Your task to perform on an android device: turn off priority inbox in the gmail app Image 0: 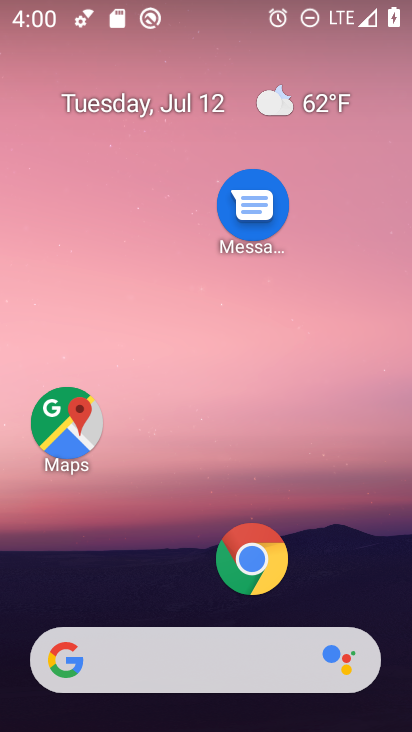
Step 0: drag from (127, 583) to (271, 19)
Your task to perform on an android device: turn off priority inbox in the gmail app Image 1: 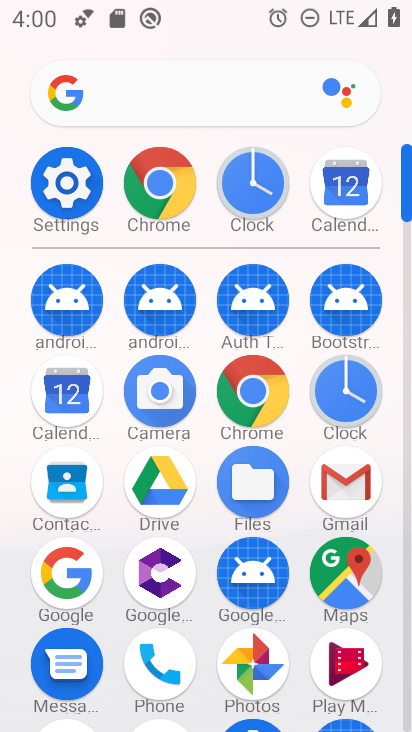
Step 1: click (336, 482)
Your task to perform on an android device: turn off priority inbox in the gmail app Image 2: 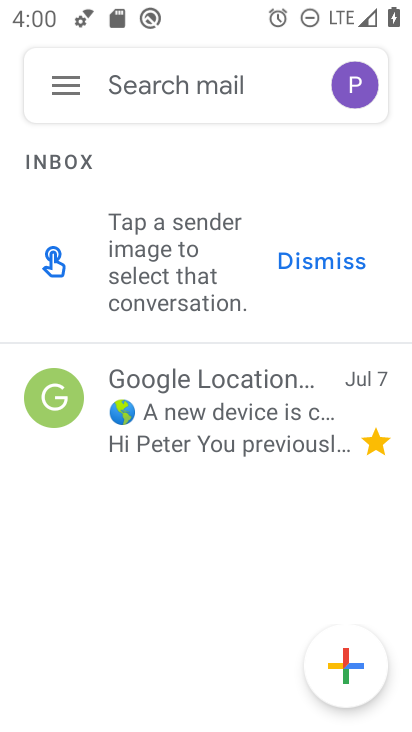
Step 2: click (70, 74)
Your task to perform on an android device: turn off priority inbox in the gmail app Image 3: 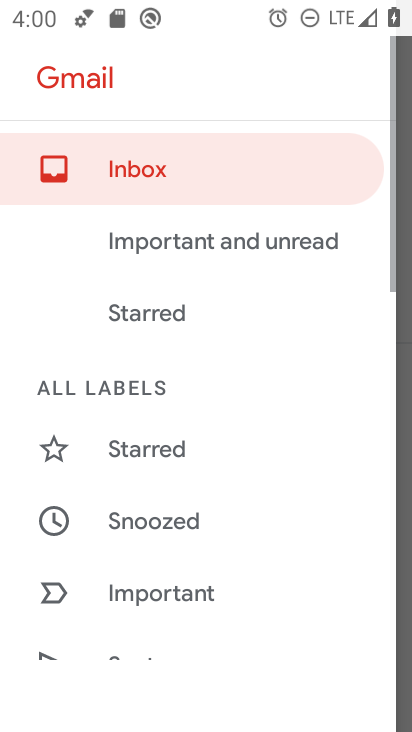
Step 3: drag from (166, 613) to (316, 26)
Your task to perform on an android device: turn off priority inbox in the gmail app Image 4: 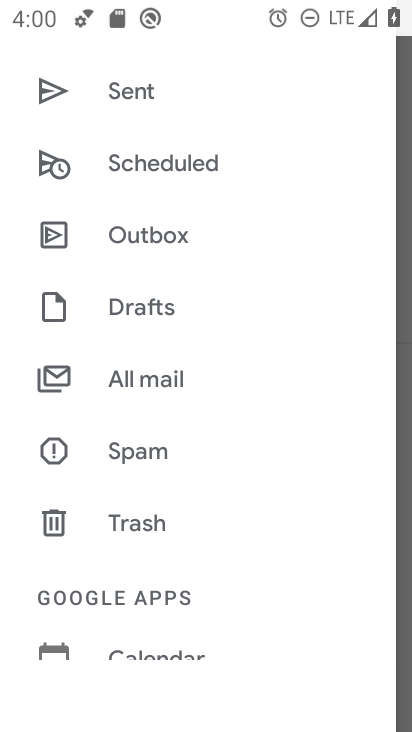
Step 4: drag from (149, 611) to (290, 0)
Your task to perform on an android device: turn off priority inbox in the gmail app Image 5: 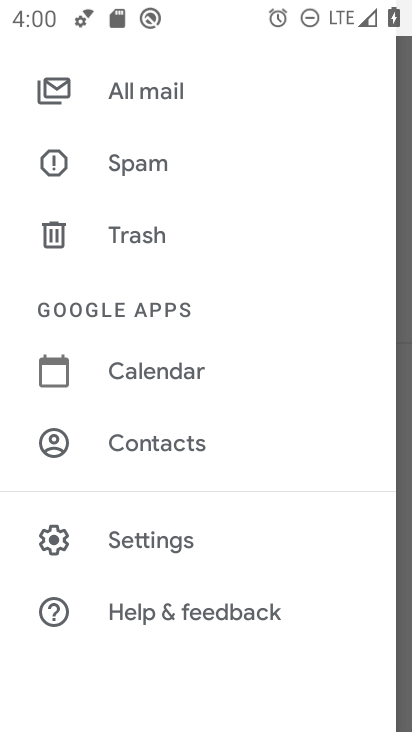
Step 5: click (156, 542)
Your task to perform on an android device: turn off priority inbox in the gmail app Image 6: 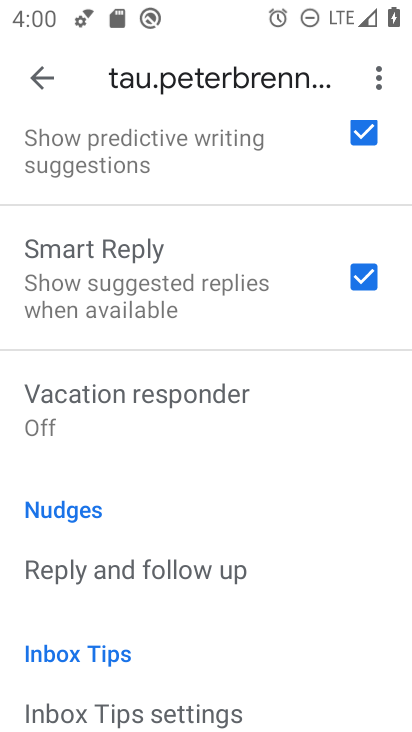
Step 6: drag from (177, 317) to (155, 695)
Your task to perform on an android device: turn off priority inbox in the gmail app Image 7: 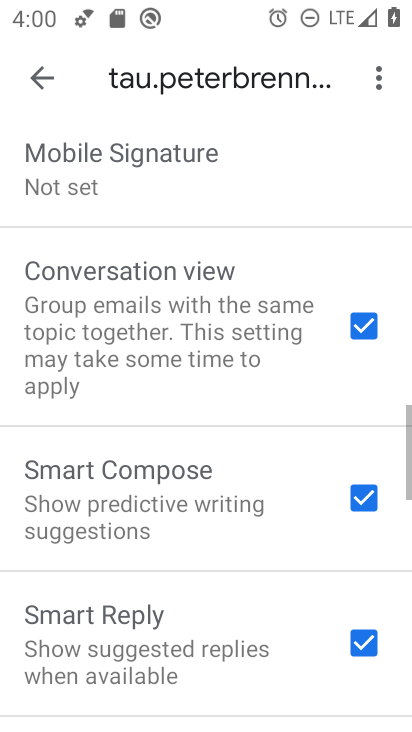
Step 7: drag from (207, 268) to (144, 724)
Your task to perform on an android device: turn off priority inbox in the gmail app Image 8: 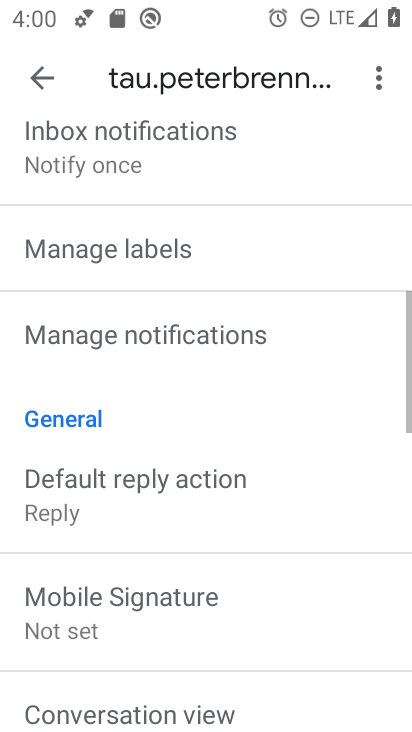
Step 8: drag from (182, 278) to (106, 731)
Your task to perform on an android device: turn off priority inbox in the gmail app Image 9: 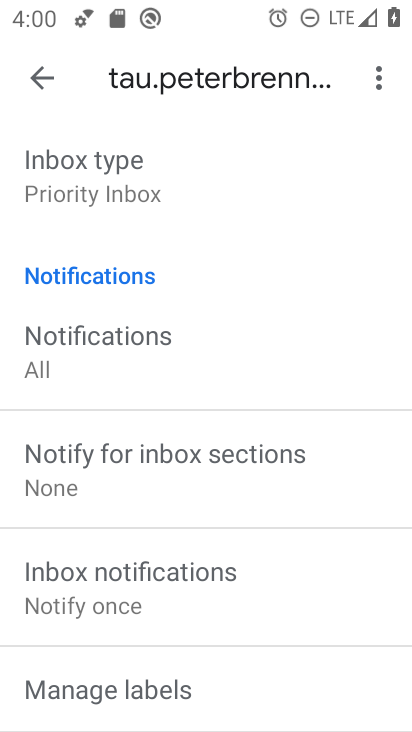
Step 9: click (98, 135)
Your task to perform on an android device: turn off priority inbox in the gmail app Image 10: 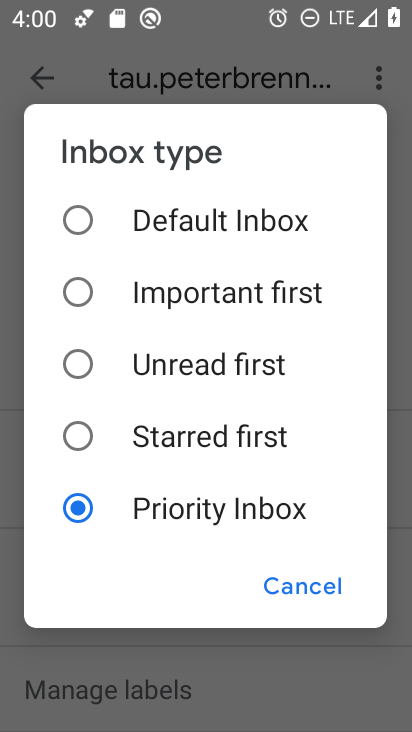
Step 10: click (71, 200)
Your task to perform on an android device: turn off priority inbox in the gmail app Image 11: 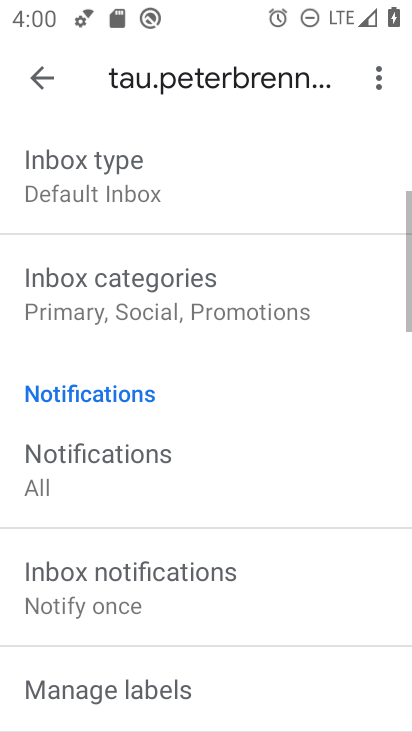
Step 11: task complete